Your task to perform on an android device: Open Amazon Image 0: 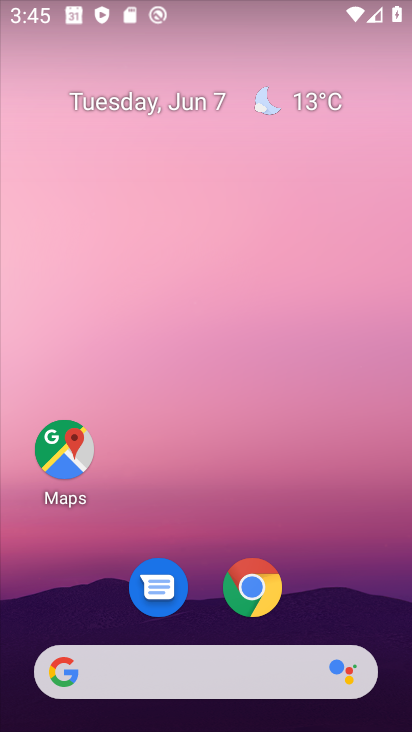
Step 0: drag from (226, 577) to (285, 51)
Your task to perform on an android device: Open Amazon Image 1: 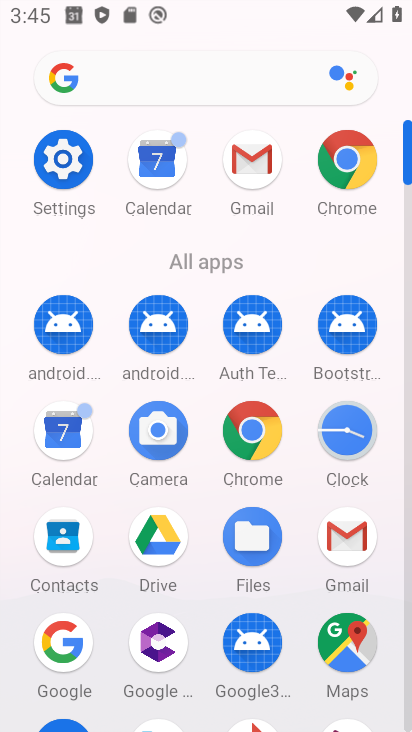
Step 1: click (331, 185)
Your task to perform on an android device: Open Amazon Image 2: 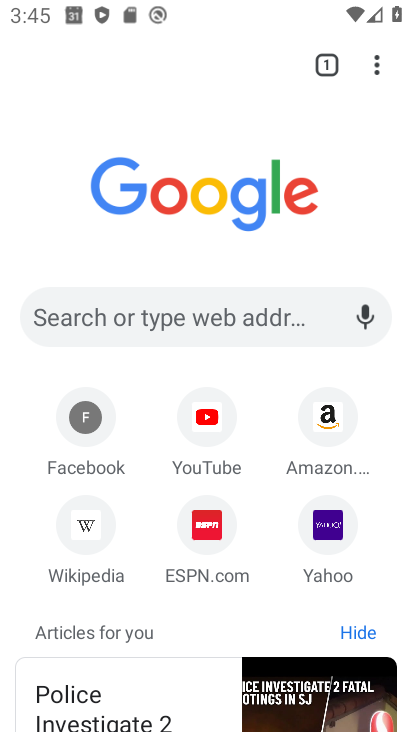
Step 2: click (345, 432)
Your task to perform on an android device: Open Amazon Image 3: 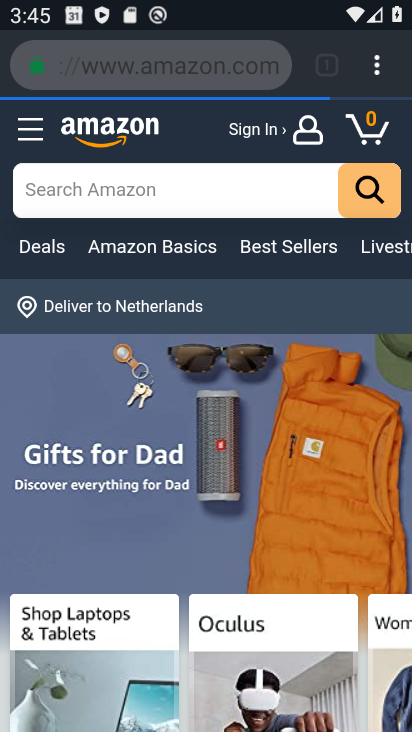
Step 3: task complete